Your task to perform on an android device: Show me the alarms in the clock app Image 0: 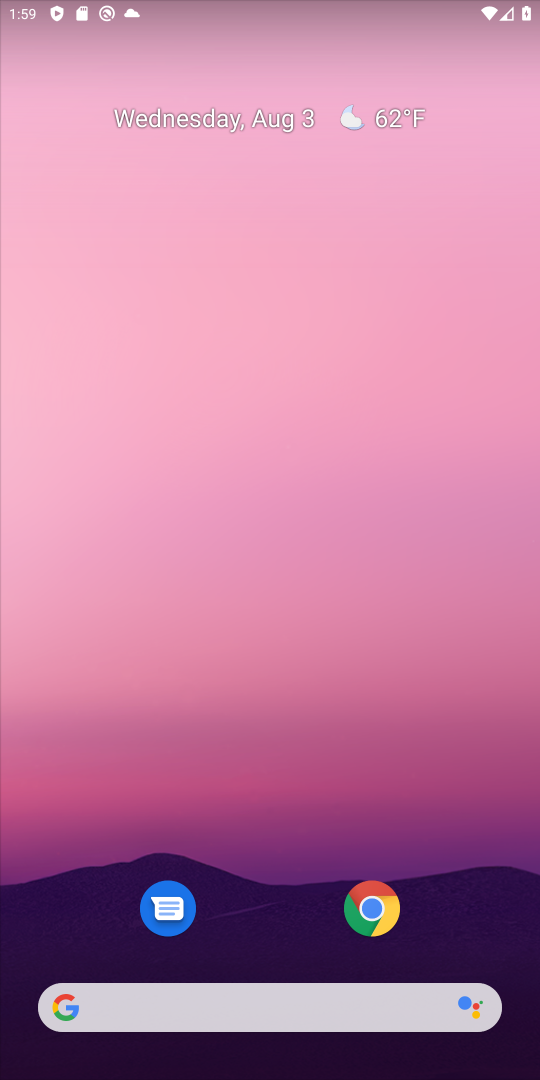
Step 0: drag from (333, 996) to (497, 317)
Your task to perform on an android device: Show me the alarms in the clock app Image 1: 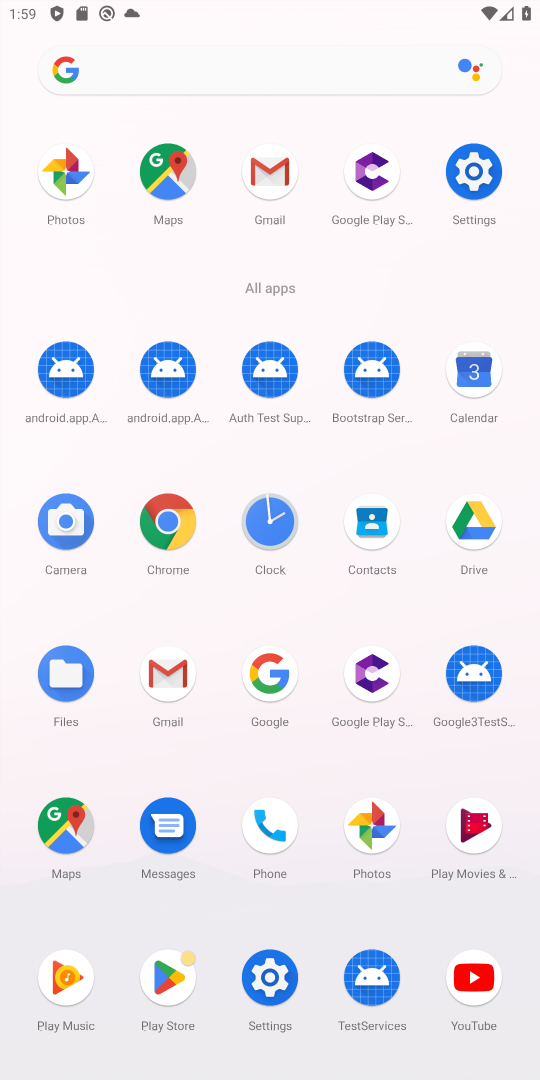
Step 1: click (271, 509)
Your task to perform on an android device: Show me the alarms in the clock app Image 2: 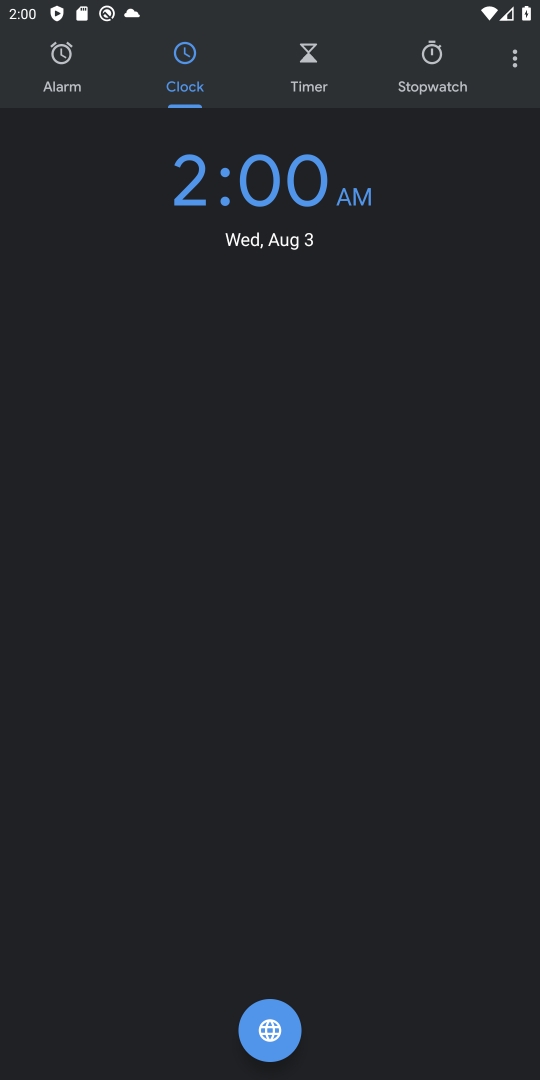
Step 2: click (69, 64)
Your task to perform on an android device: Show me the alarms in the clock app Image 3: 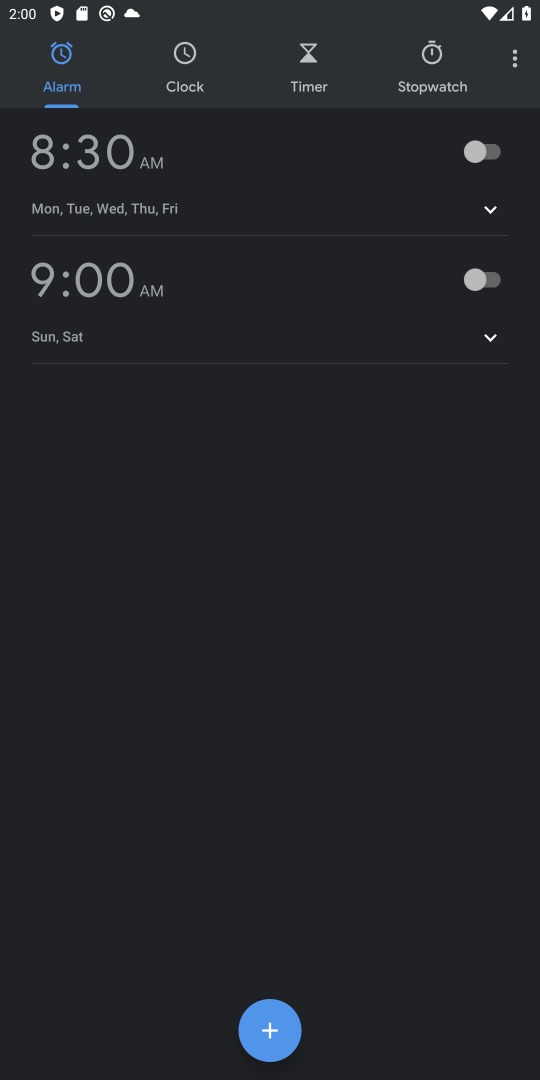
Step 3: task complete